Your task to perform on an android device: Open Youtube and go to "Your channel" Image 0: 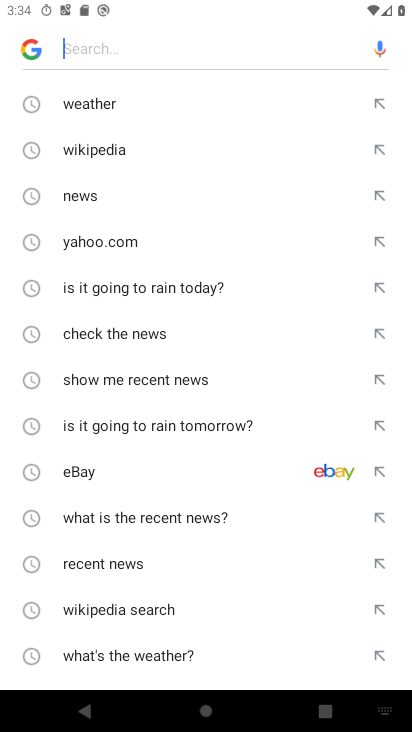
Step 0: press home button
Your task to perform on an android device: Open Youtube and go to "Your channel" Image 1: 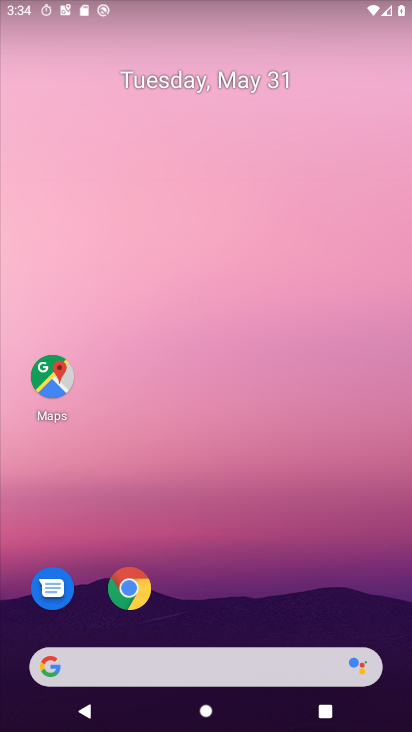
Step 1: drag from (164, 687) to (181, 184)
Your task to perform on an android device: Open Youtube and go to "Your channel" Image 2: 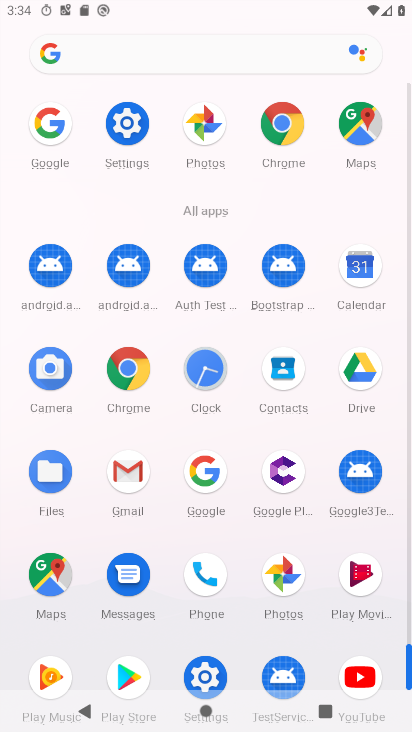
Step 2: drag from (221, 577) to (230, 263)
Your task to perform on an android device: Open Youtube and go to "Your channel" Image 3: 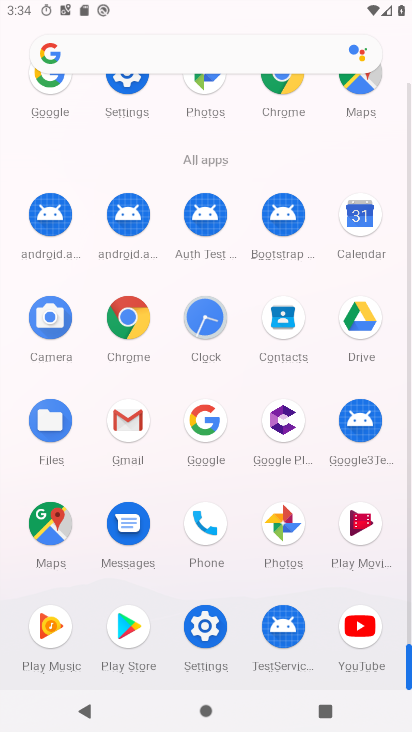
Step 3: click (352, 628)
Your task to perform on an android device: Open Youtube and go to "Your channel" Image 4: 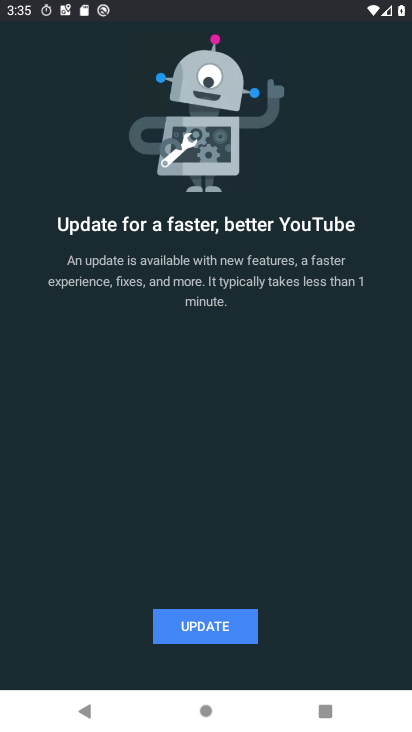
Step 4: task complete